Your task to perform on an android device: snooze an email in the gmail app Image 0: 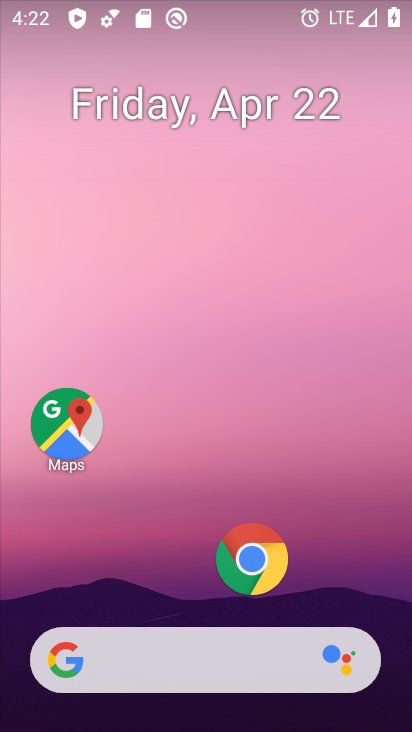
Step 0: drag from (201, 615) to (239, 147)
Your task to perform on an android device: snooze an email in the gmail app Image 1: 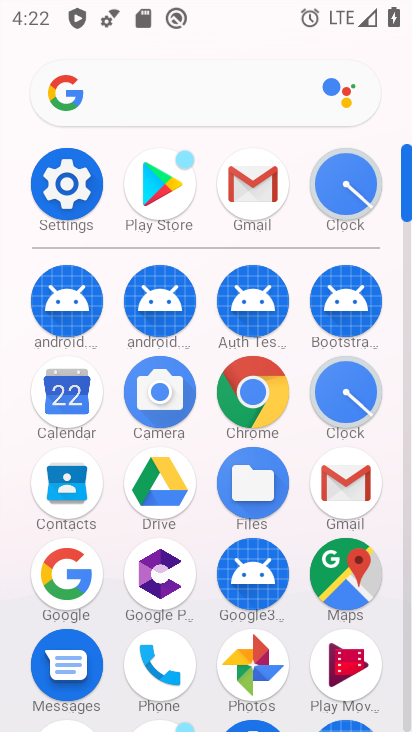
Step 1: click (345, 484)
Your task to perform on an android device: snooze an email in the gmail app Image 2: 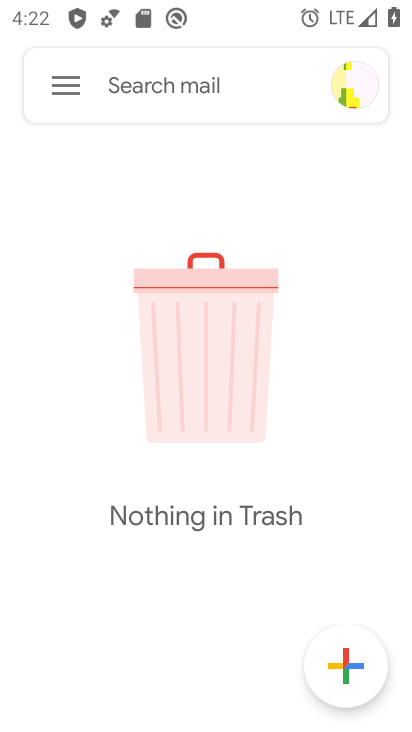
Step 2: click (51, 83)
Your task to perform on an android device: snooze an email in the gmail app Image 3: 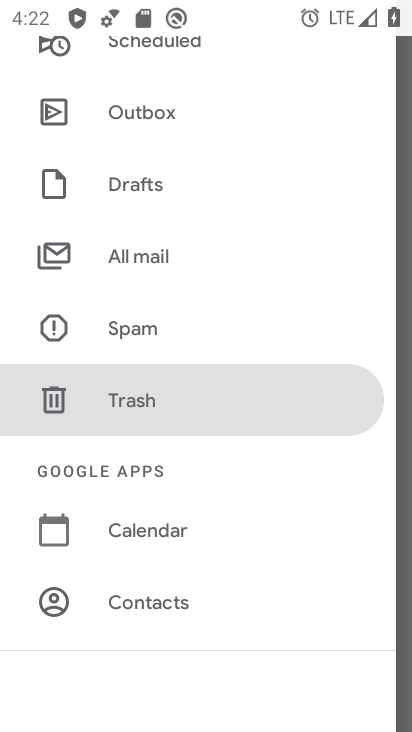
Step 3: click (128, 260)
Your task to perform on an android device: snooze an email in the gmail app Image 4: 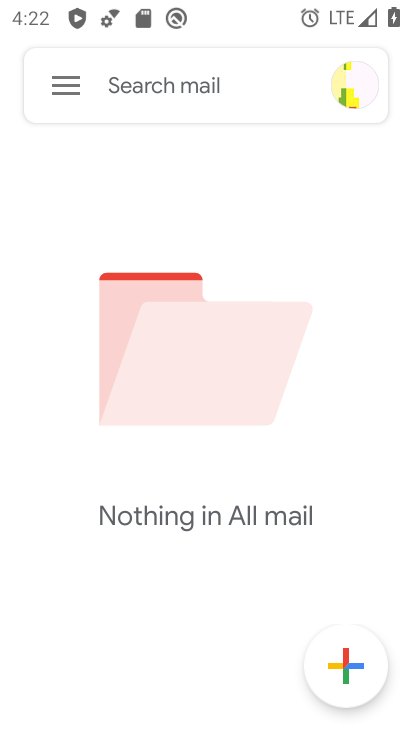
Step 4: task complete